Your task to perform on an android device: turn on translation in the chrome app Image 0: 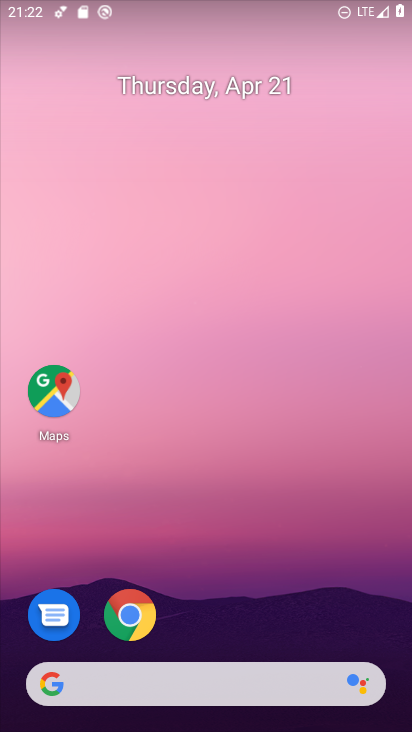
Step 0: drag from (208, 614) to (253, 89)
Your task to perform on an android device: turn on translation in the chrome app Image 1: 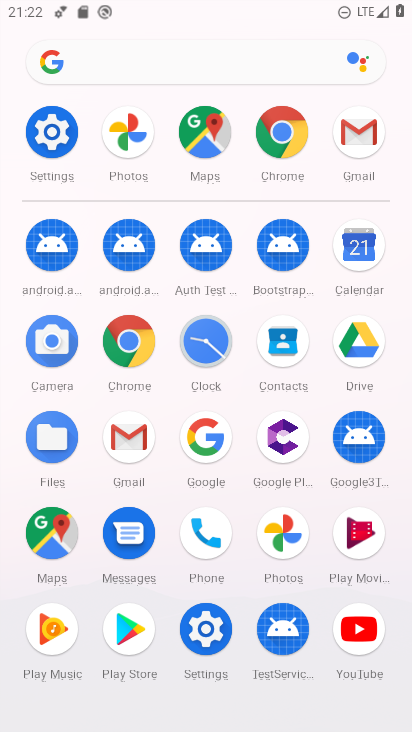
Step 1: click (127, 349)
Your task to perform on an android device: turn on translation in the chrome app Image 2: 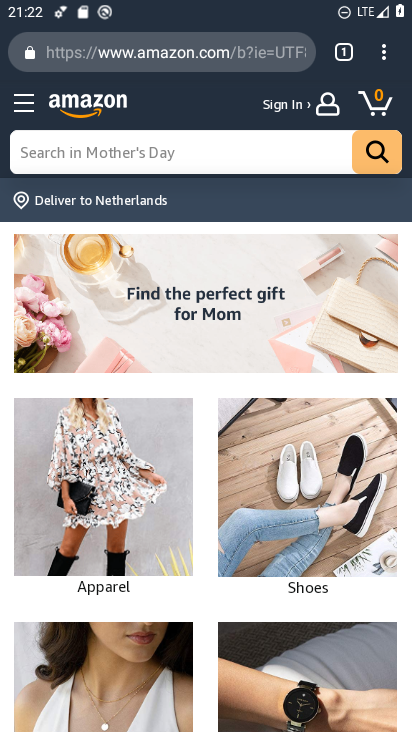
Step 2: click (395, 39)
Your task to perform on an android device: turn on translation in the chrome app Image 3: 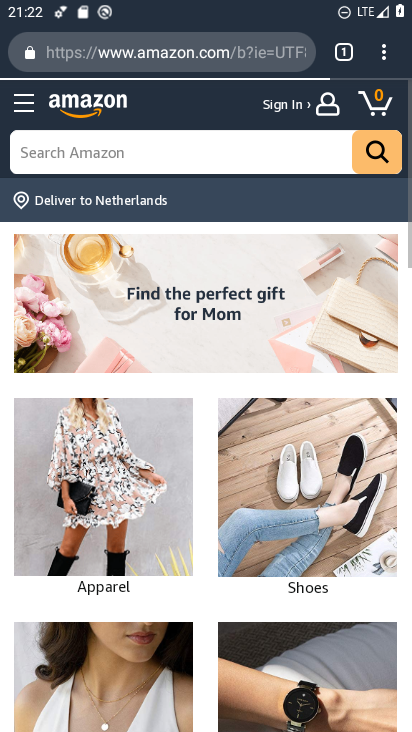
Step 3: drag from (388, 39) to (277, 654)
Your task to perform on an android device: turn on translation in the chrome app Image 4: 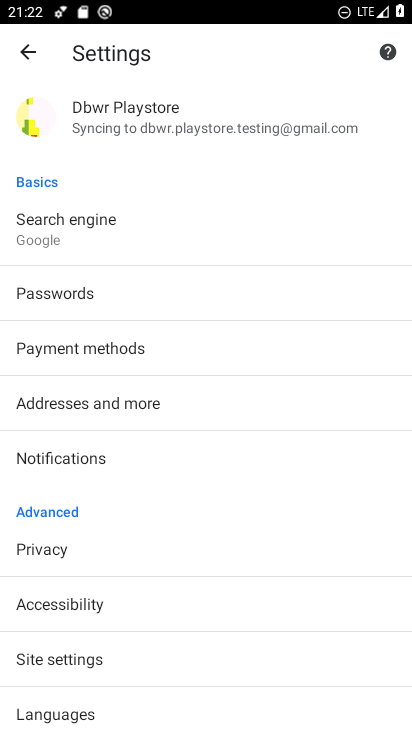
Step 4: drag from (206, 244) to (225, 131)
Your task to perform on an android device: turn on translation in the chrome app Image 5: 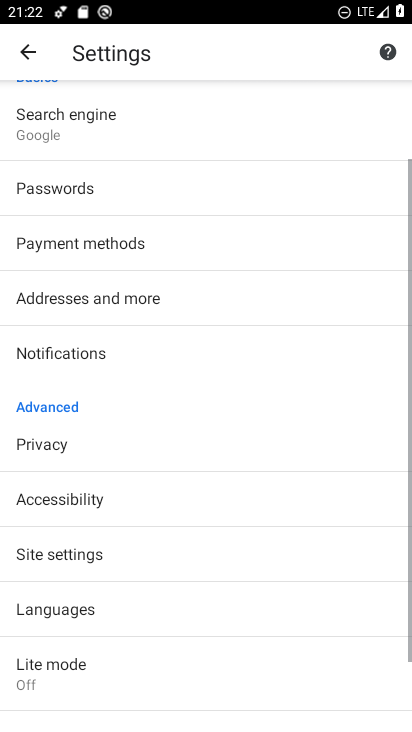
Step 5: drag from (178, 536) to (258, 151)
Your task to perform on an android device: turn on translation in the chrome app Image 6: 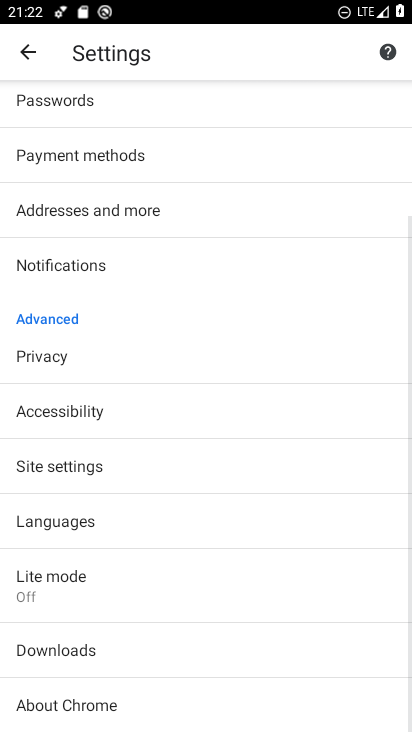
Step 6: drag from (160, 597) to (252, 252)
Your task to perform on an android device: turn on translation in the chrome app Image 7: 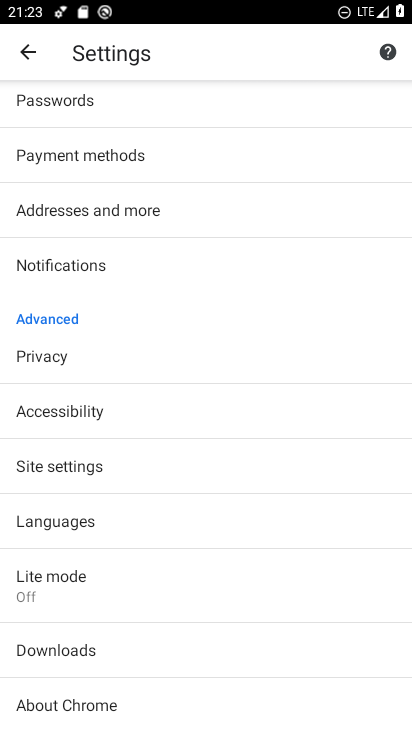
Step 7: click (124, 502)
Your task to perform on an android device: turn on translation in the chrome app Image 8: 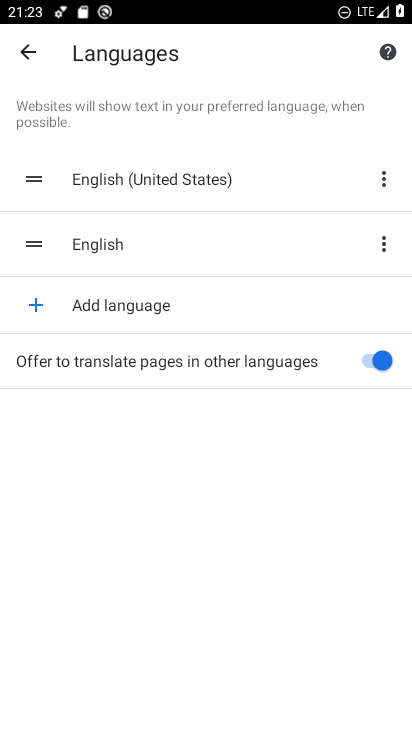
Step 8: task complete